Your task to perform on an android device: Go to Reddit.com Image 0: 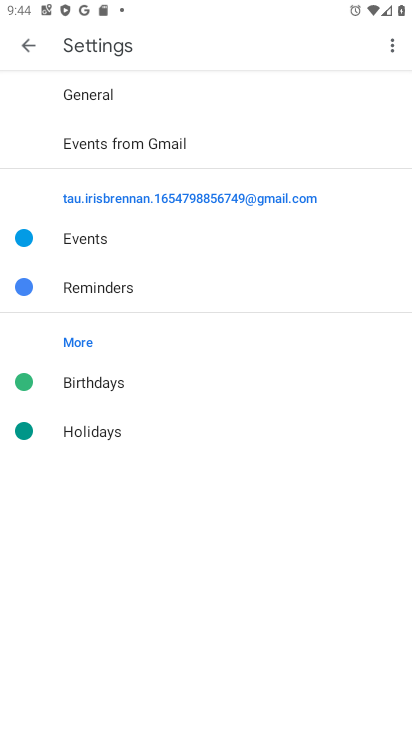
Step 0: press home button
Your task to perform on an android device: Go to Reddit.com Image 1: 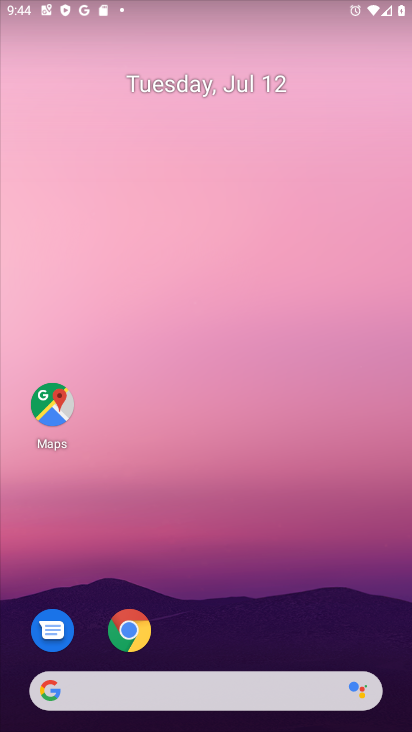
Step 1: drag from (197, 631) to (222, 240)
Your task to perform on an android device: Go to Reddit.com Image 2: 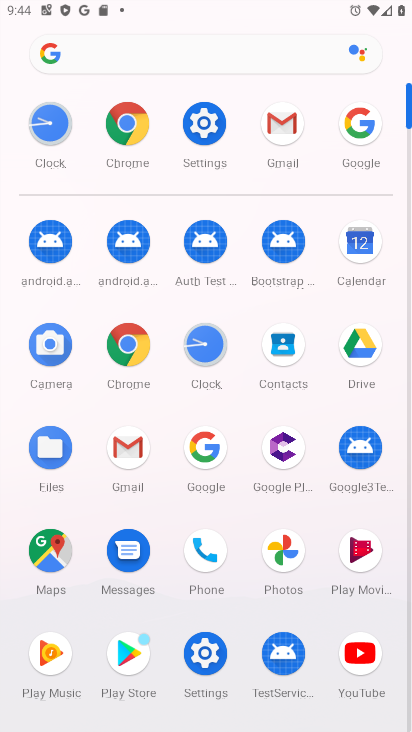
Step 2: click (368, 125)
Your task to perform on an android device: Go to Reddit.com Image 3: 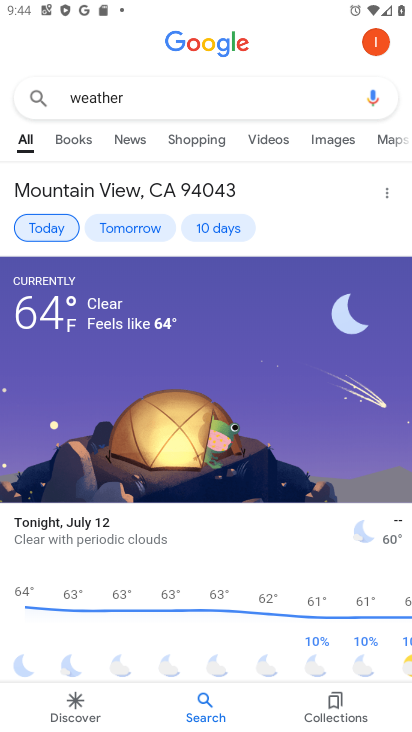
Step 3: click (187, 97)
Your task to perform on an android device: Go to Reddit.com Image 4: 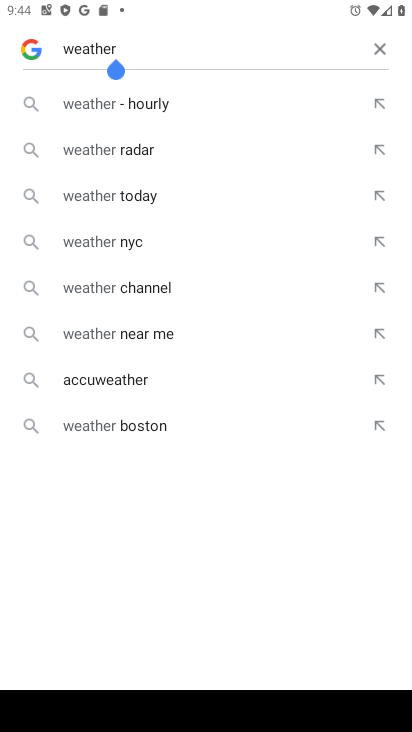
Step 4: click (377, 46)
Your task to perform on an android device: Go to Reddit.com Image 5: 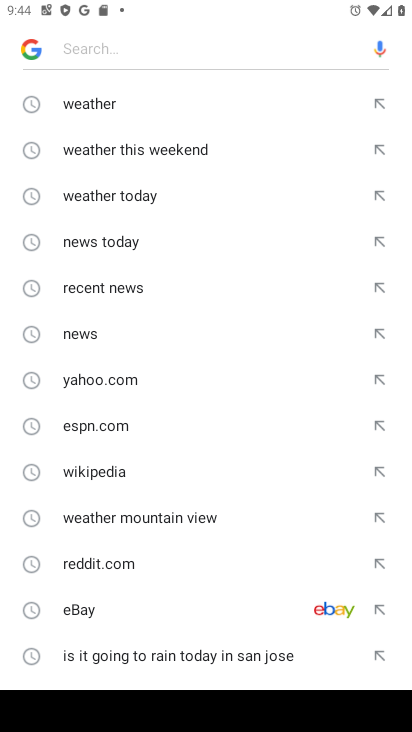
Step 5: click (113, 569)
Your task to perform on an android device: Go to Reddit.com Image 6: 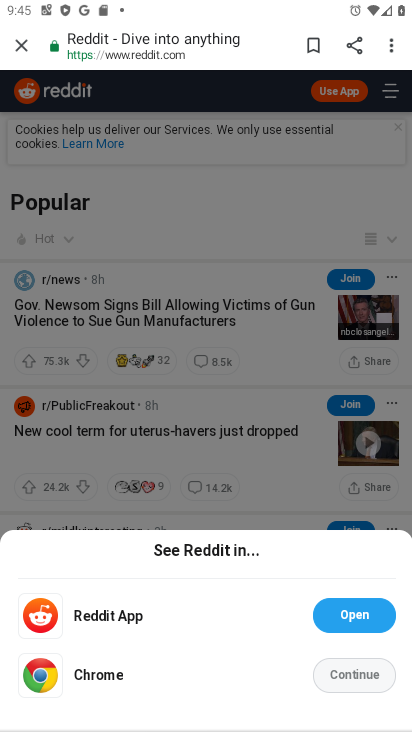
Step 6: task complete